Your task to perform on an android device: change notification settings in the gmail app Image 0: 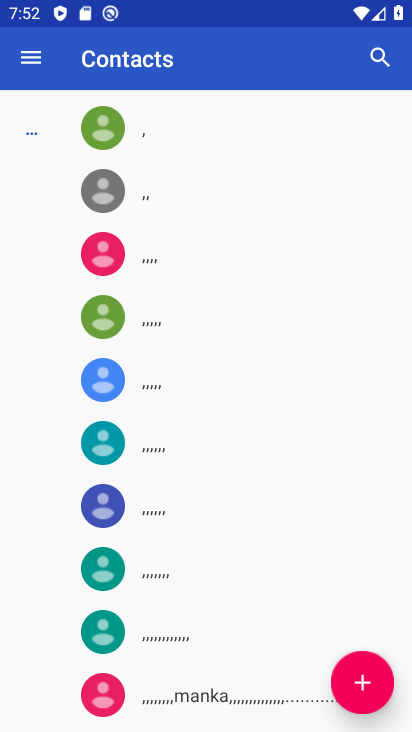
Step 0: press home button
Your task to perform on an android device: change notification settings in the gmail app Image 1: 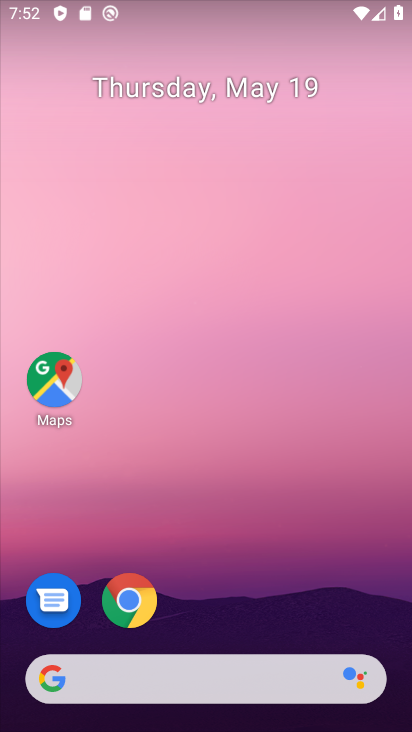
Step 1: drag from (370, 612) to (356, 167)
Your task to perform on an android device: change notification settings in the gmail app Image 2: 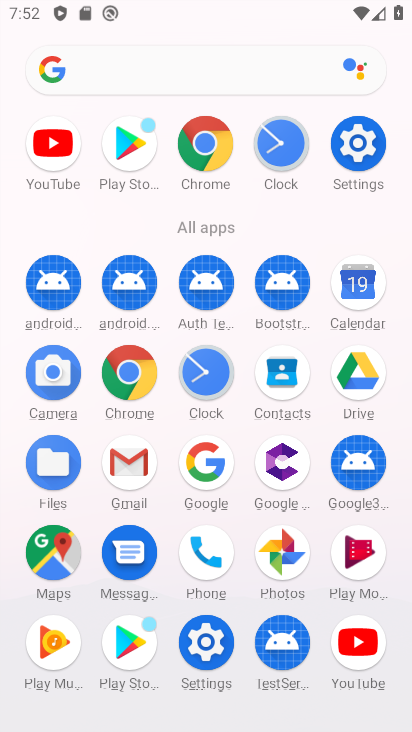
Step 2: click (145, 485)
Your task to perform on an android device: change notification settings in the gmail app Image 3: 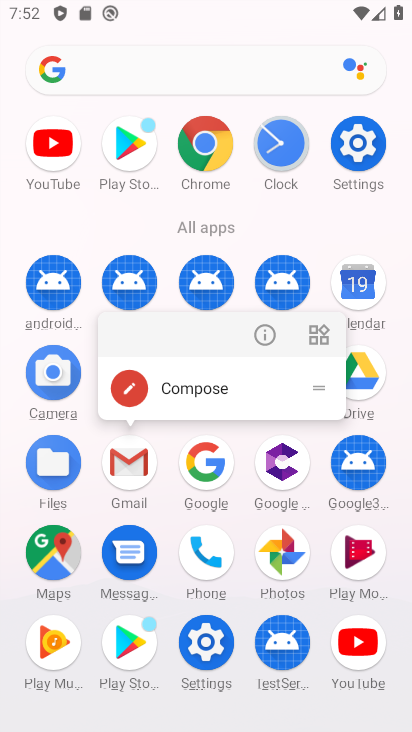
Step 3: click (145, 485)
Your task to perform on an android device: change notification settings in the gmail app Image 4: 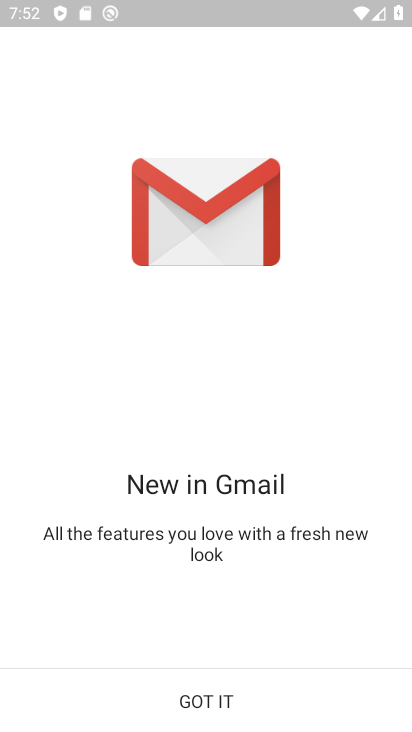
Step 4: click (231, 704)
Your task to perform on an android device: change notification settings in the gmail app Image 5: 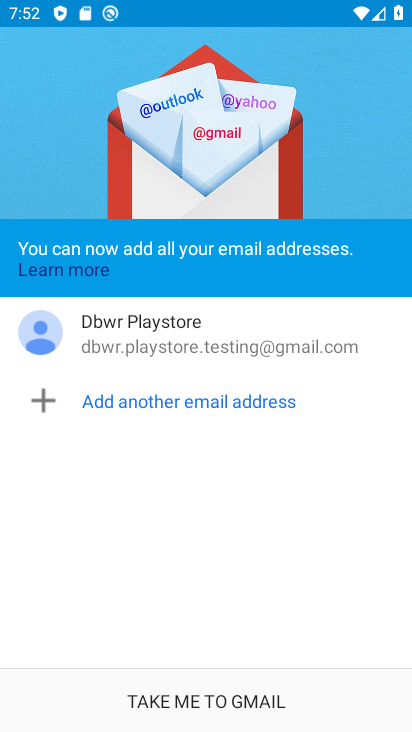
Step 5: click (231, 704)
Your task to perform on an android device: change notification settings in the gmail app Image 6: 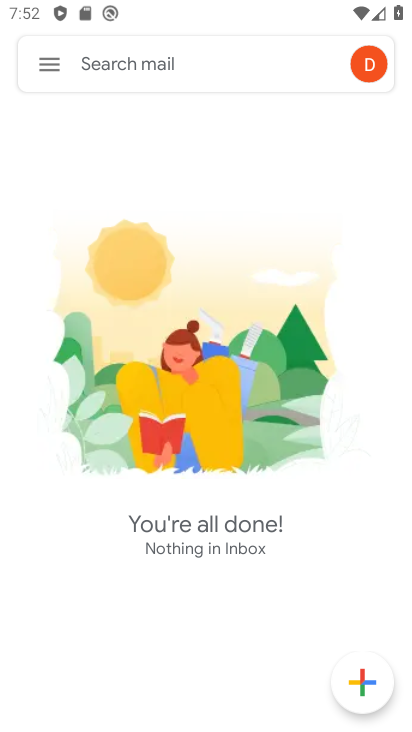
Step 6: click (46, 68)
Your task to perform on an android device: change notification settings in the gmail app Image 7: 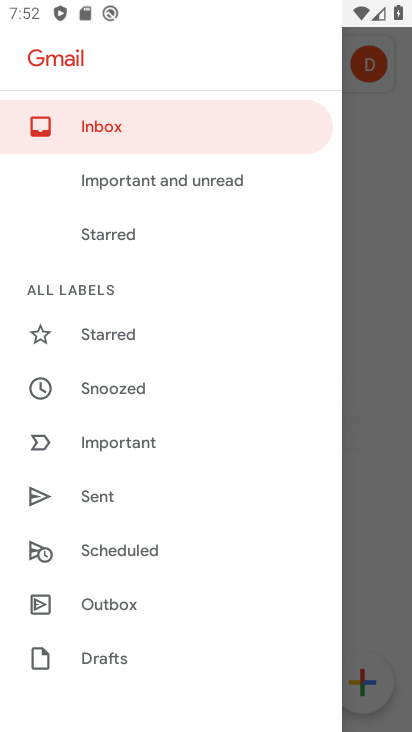
Step 7: drag from (238, 611) to (231, 537)
Your task to perform on an android device: change notification settings in the gmail app Image 8: 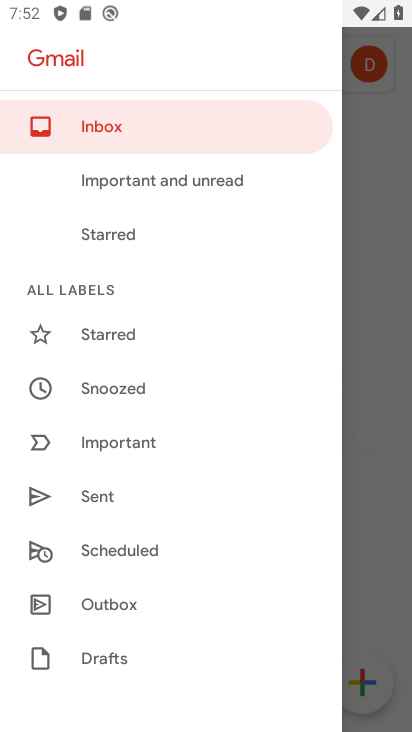
Step 8: drag from (257, 622) to (256, 519)
Your task to perform on an android device: change notification settings in the gmail app Image 9: 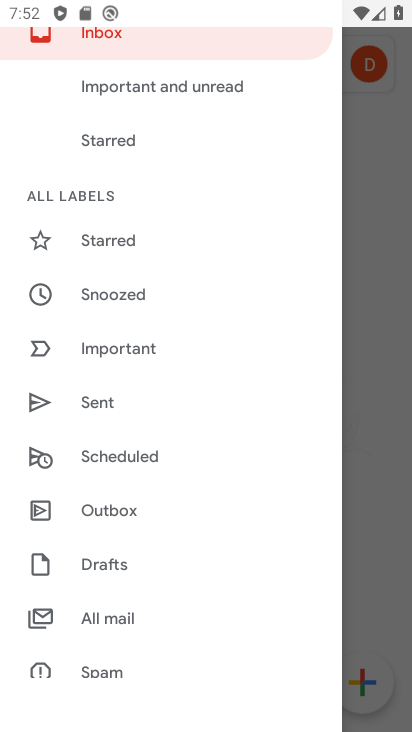
Step 9: drag from (250, 646) to (250, 551)
Your task to perform on an android device: change notification settings in the gmail app Image 10: 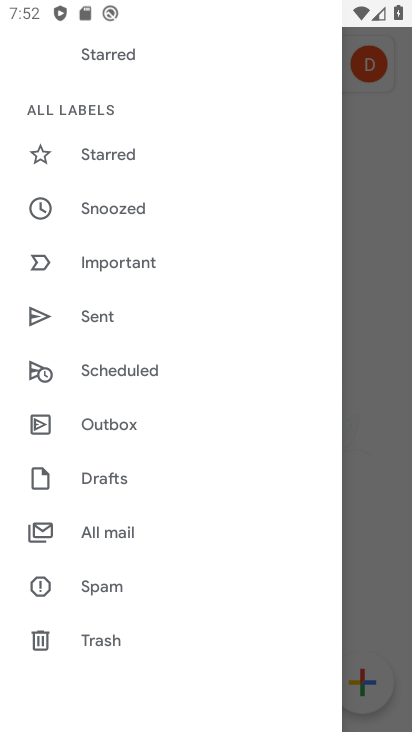
Step 10: drag from (263, 545) to (287, 432)
Your task to perform on an android device: change notification settings in the gmail app Image 11: 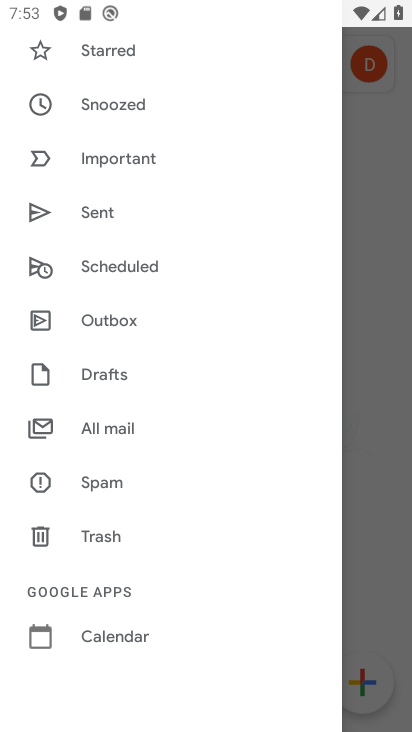
Step 11: drag from (265, 566) to (274, 418)
Your task to perform on an android device: change notification settings in the gmail app Image 12: 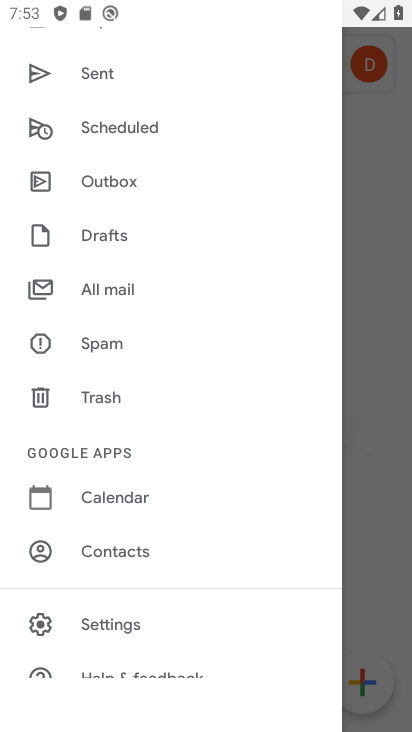
Step 12: drag from (266, 606) to (269, 479)
Your task to perform on an android device: change notification settings in the gmail app Image 13: 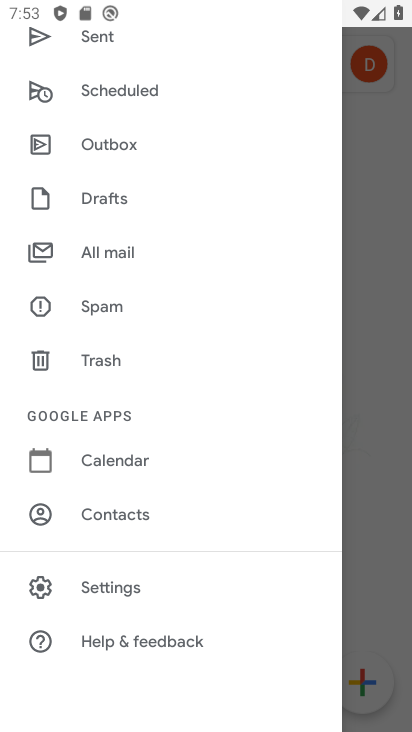
Step 13: click (189, 584)
Your task to perform on an android device: change notification settings in the gmail app Image 14: 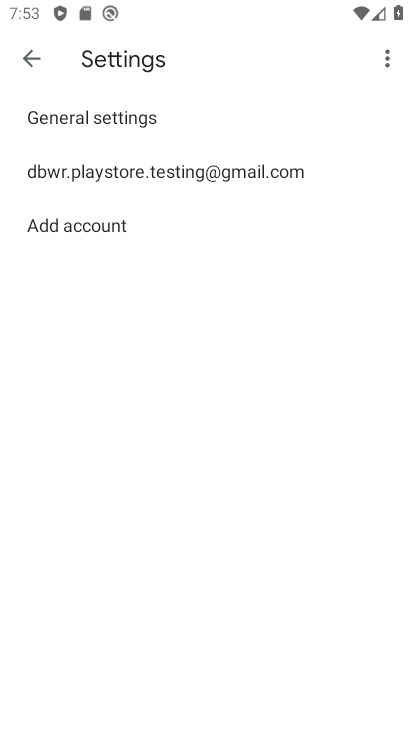
Step 14: click (151, 190)
Your task to perform on an android device: change notification settings in the gmail app Image 15: 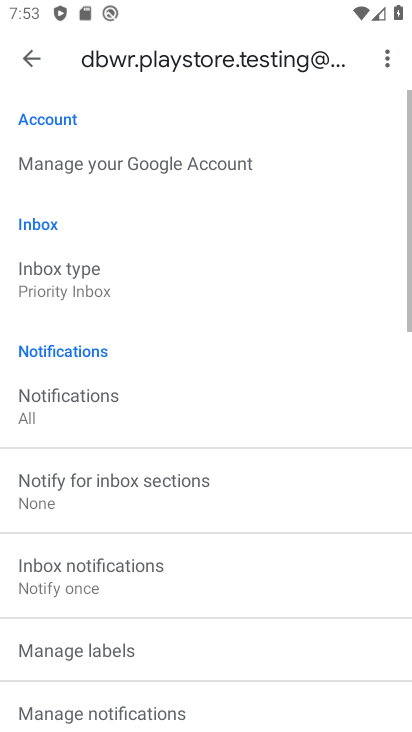
Step 15: drag from (303, 578) to (313, 483)
Your task to perform on an android device: change notification settings in the gmail app Image 16: 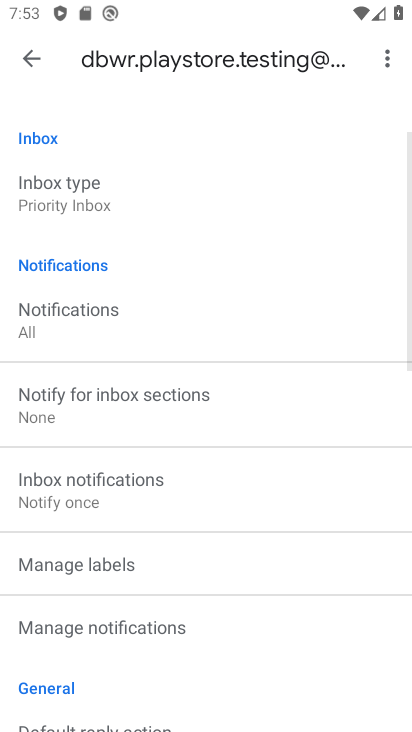
Step 16: drag from (319, 587) to (337, 487)
Your task to perform on an android device: change notification settings in the gmail app Image 17: 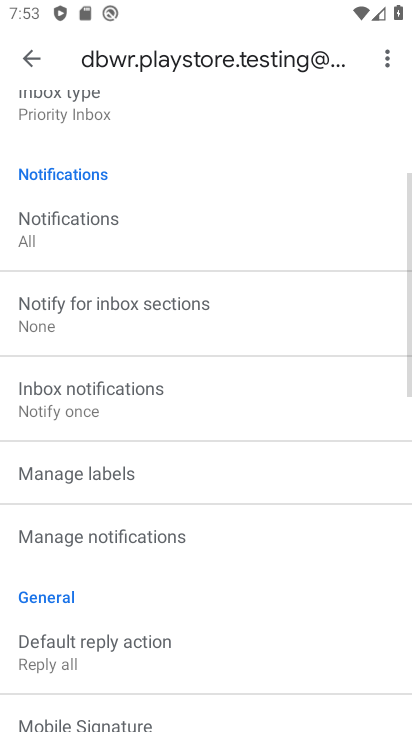
Step 17: drag from (342, 595) to (348, 521)
Your task to perform on an android device: change notification settings in the gmail app Image 18: 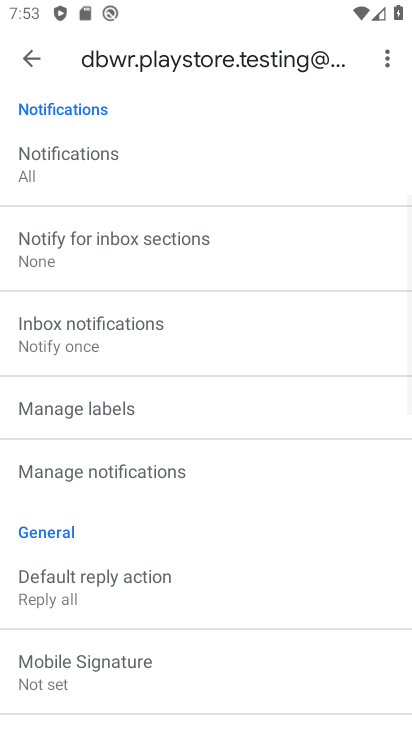
Step 18: drag from (343, 598) to (352, 497)
Your task to perform on an android device: change notification settings in the gmail app Image 19: 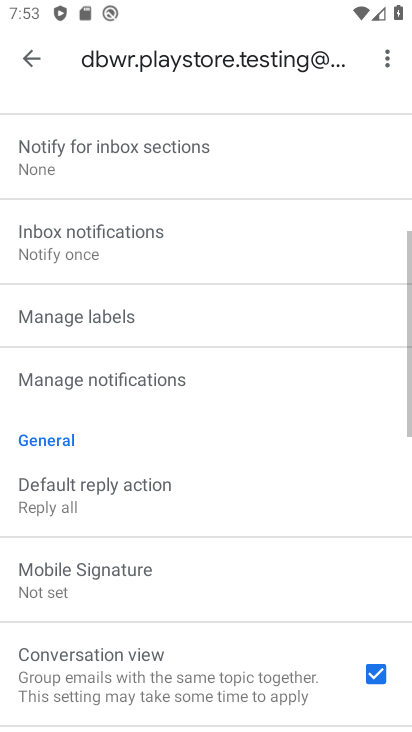
Step 19: drag from (342, 564) to (344, 515)
Your task to perform on an android device: change notification settings in the gmail app Image 20: 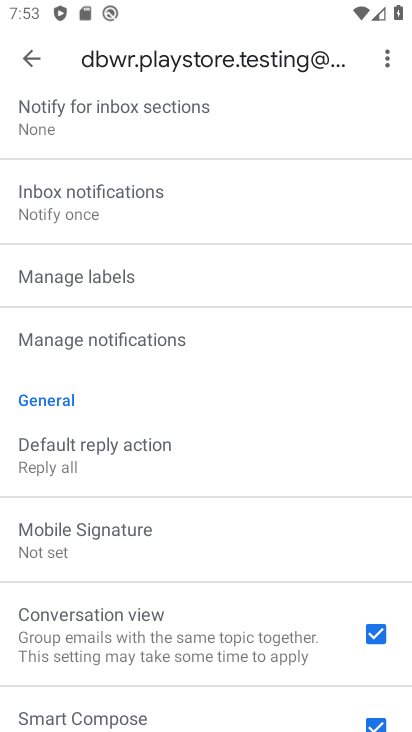
Step 20: drag from (307, 576) to (319, 529)
Your task to perform on an android device: change notification settings in the gmail app Image 21: 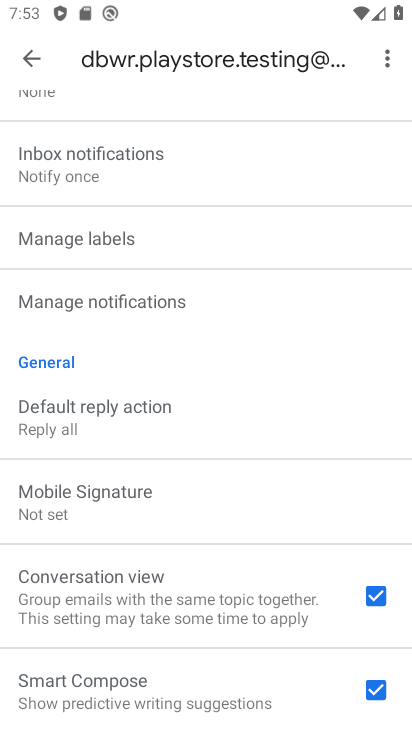
Step 21: drag from (298, 607) to (293, 527)
Your task to perform on an android device: change notification settings in the gmail app Image 22: 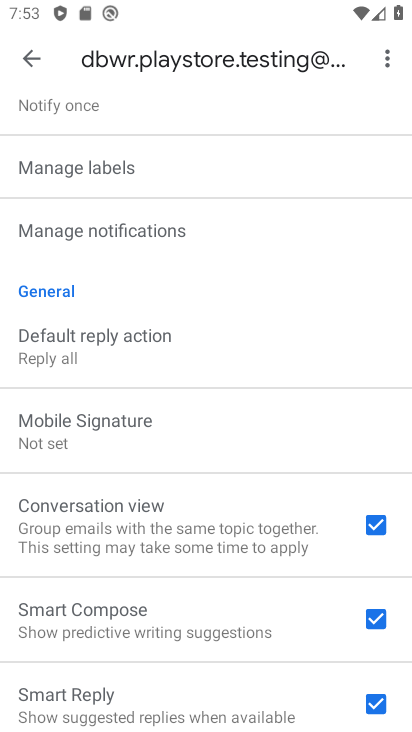
Step 22: drag from (272, 633) to (281, 574)
Your task to perform on an android device: change notification settings in the gmail app Image 23: 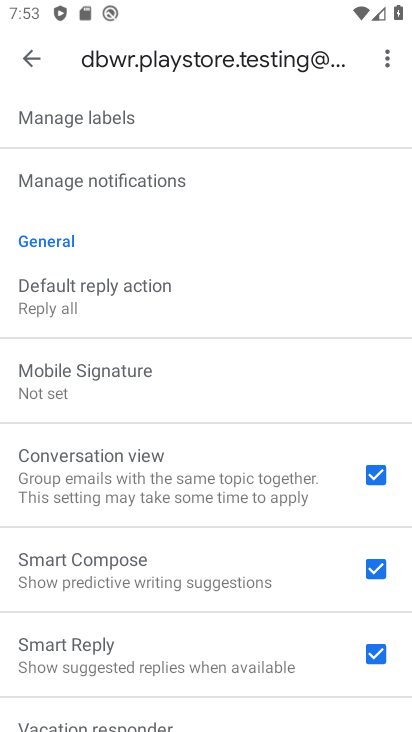
Step 23: click (159, 190)
Your task to perform on an android device: change notification settings in the gmail app Image 24: 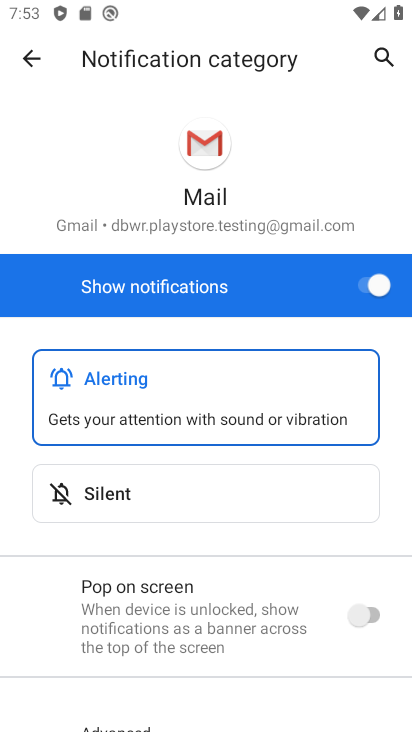
Step 24: click (360, 280)
Your task to perform on an android device: change notification settings in the gmail app Image 25: 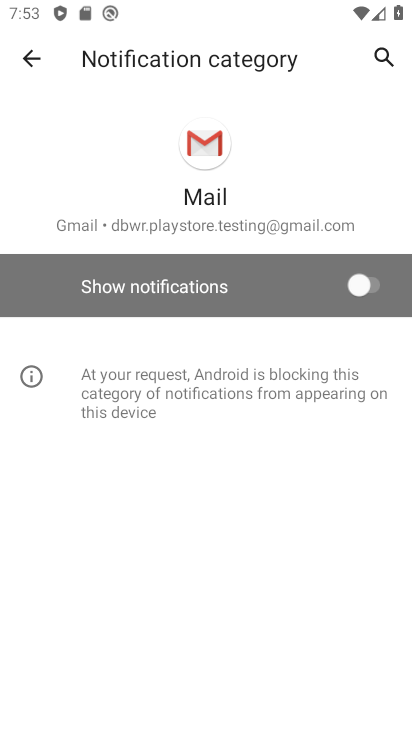
Step 25: task complete